Your task to perform on an android device: Go to Amazon Image 0: 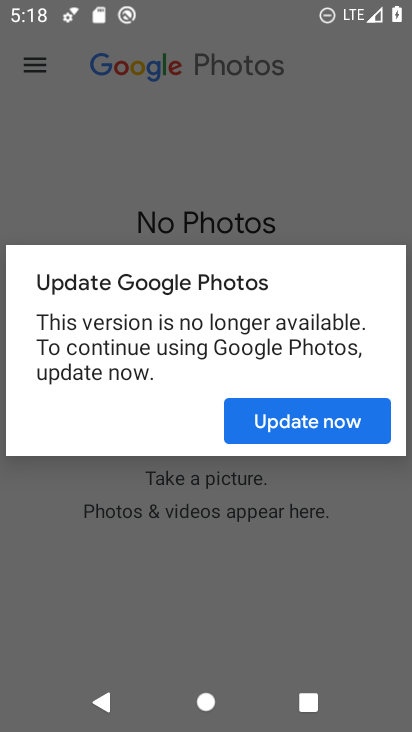
Step 0: press home button
Your task to perform on an android device: Go to Amazon Image 1: 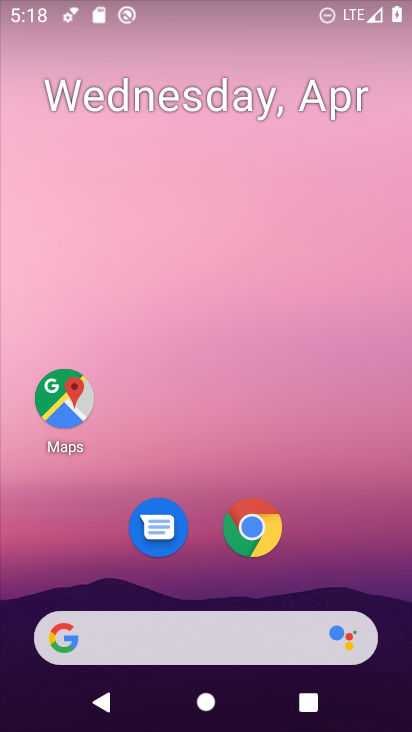
Step 1: click (258, 538)
Your task to perform on an android device: Go to Amazon Image 2: 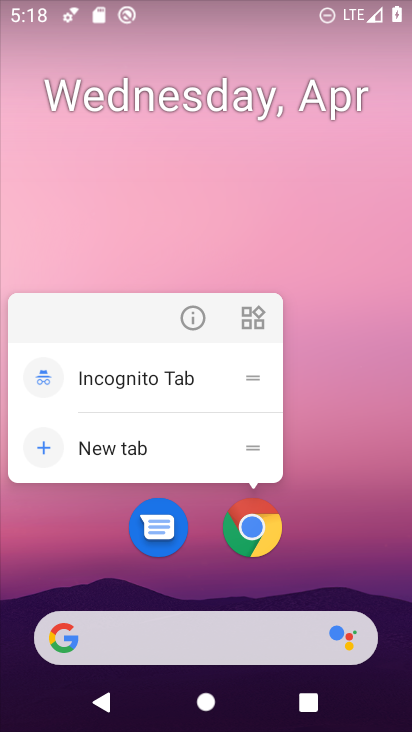
Step 2: click (257, 535)
Your task to perform on an android device: Go to Amazon Image 3: 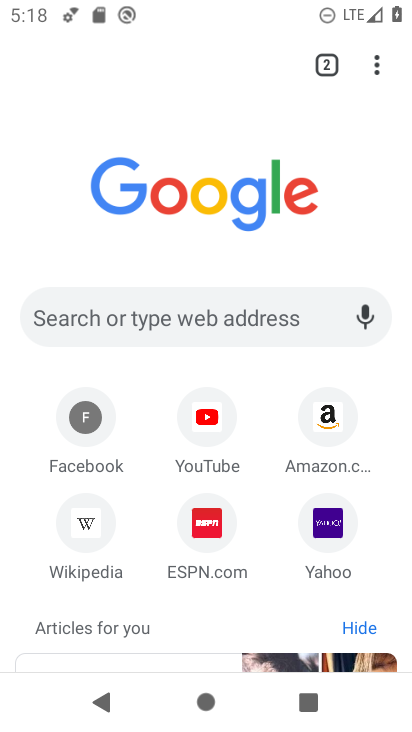
Step 3: click (332, 423)
Your task to perform on an android device: Go to Amazon Image 4: 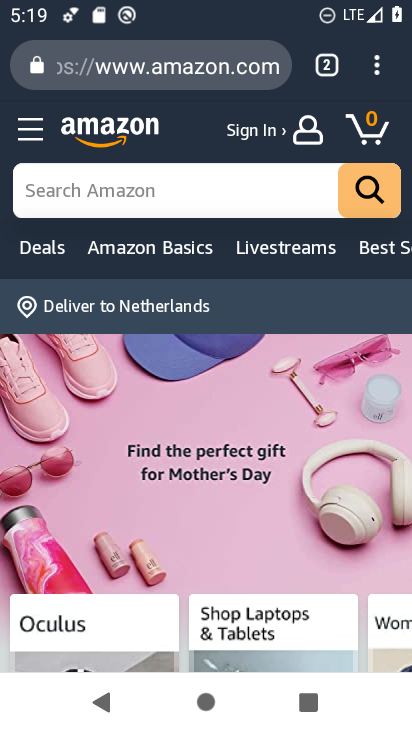
Step 4: task complete